Your task to perform on an android device: toggle notifications settings in the gmail app Image 0: 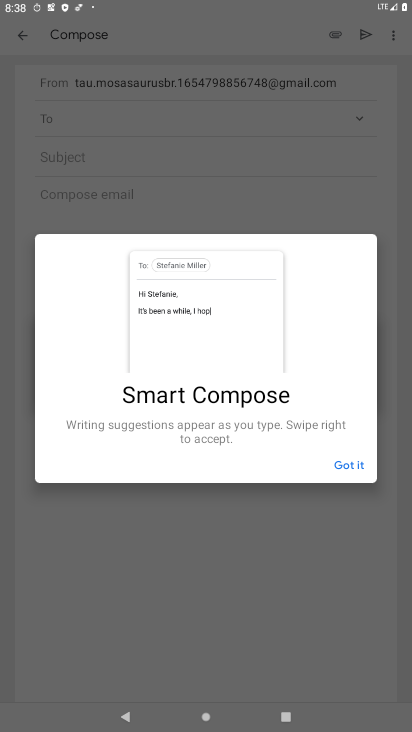
Step 0: press home button
Your task to perform on an android device: toggle notifications settings in the gmail app Image 1: 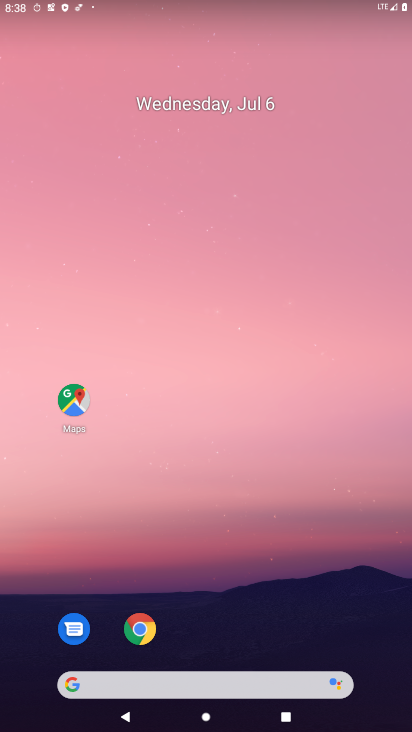
Step 1: drag from (231, 674) to (226, 455)
Your task to perform on an android device: toggle notifications settings in the gmail app Image 2: 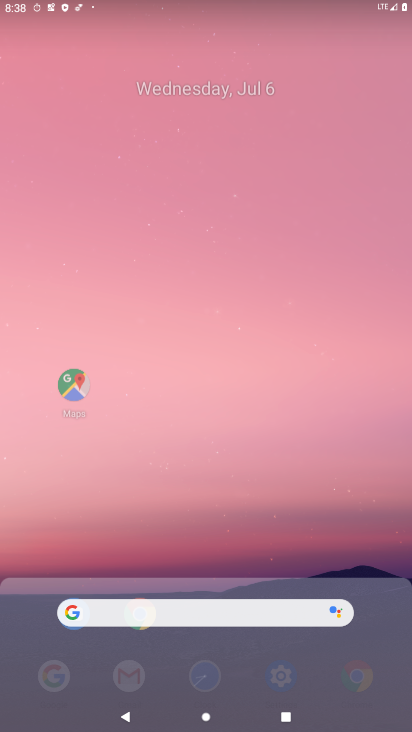
Step 2: click (212, 159)
Your task to perform on an android device: toggle notifications settings in the gmail app Image 3: 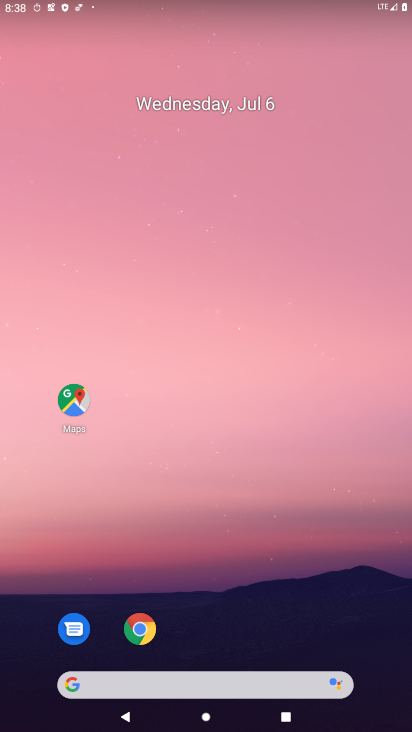
Step 3: drag from (250, 728) to (250, 549)
Your task to perform on an android device: toggle notifications settings in the gmail app Image 4: 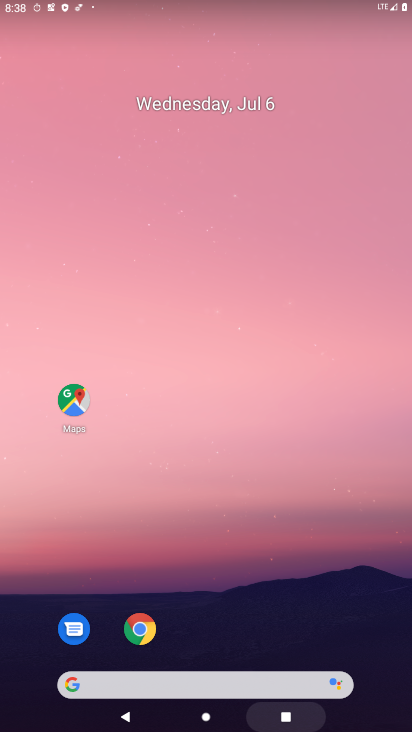
Step 4: click (243, 149)
Your task to perform on an android device: toggle notifications settings in the gmail app Image 5: 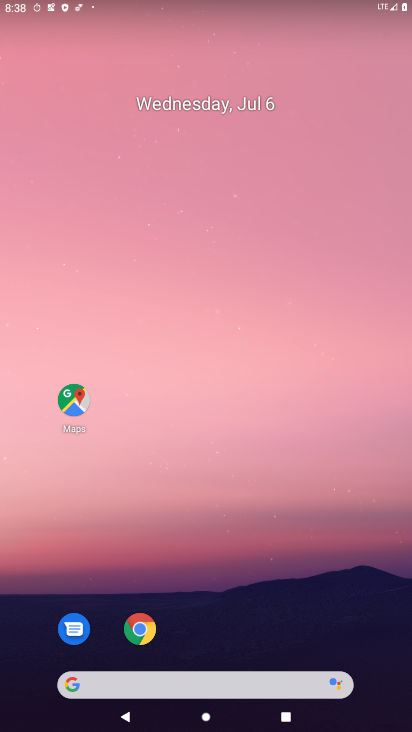
Step 5: drag from (242, 725) to (201, 18)
Your task to perform on an android device: toggle notifications settings in the gmail app Image 6: 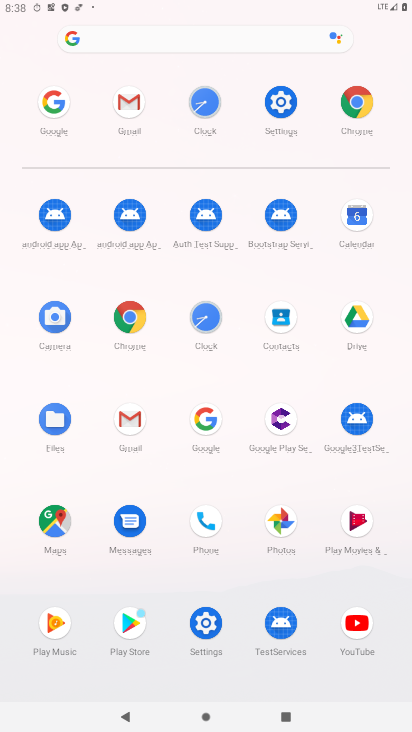
Step 6: click (131, 100)
Your task to perform on an android device: toggle notifications settings in the gmail app Image 7: 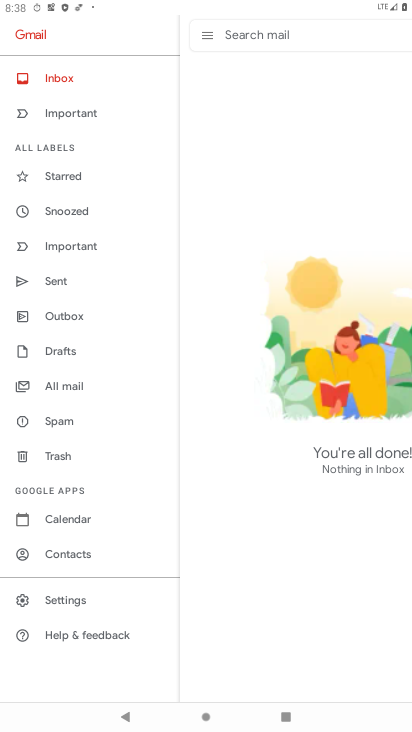
Step 7: click (80, 595)
Your task to perform on an android device: toggle notifications settings in the gmail app Image 8: 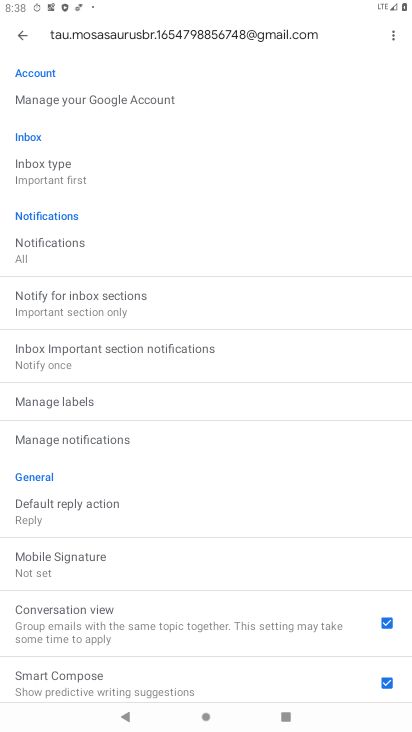
Step 8: click (51, 245)
Your task to perform on an android device: toggle notifications settings in the gmail app Image 9: 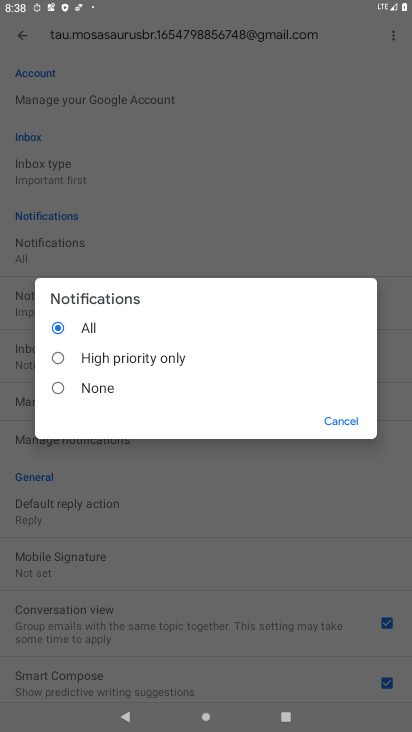
Step 9: click (59, 385)
Your task to perform on an android device: toggle notifications settings in the gmail app Image 10: 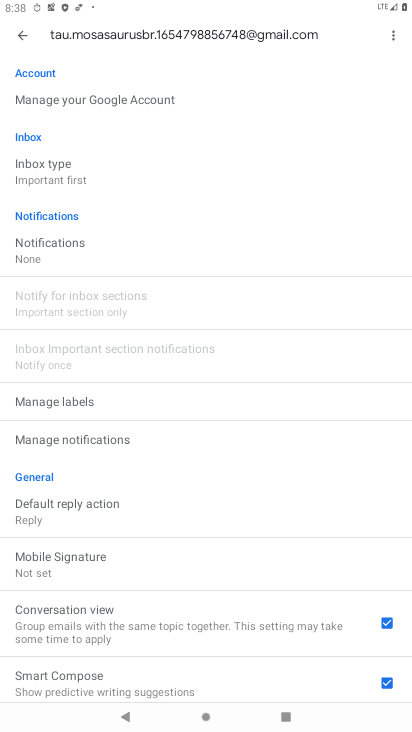
Step 10: task complete